Your task to perform on an android device: turn on translation in the chrome app Image 0: 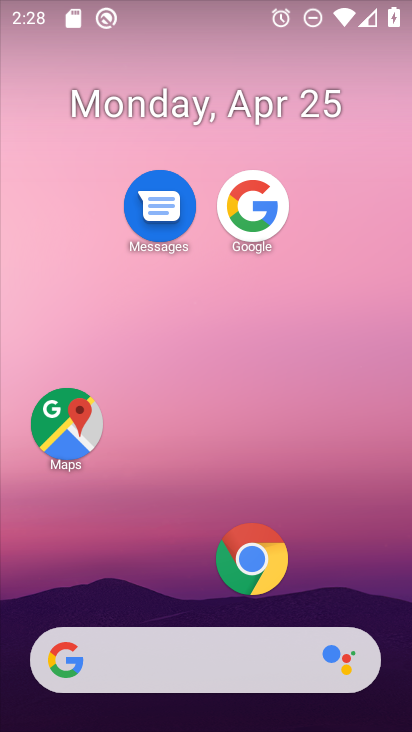
Step 0: click (252, 558)
Your task to perform on an android device: turn on translation in the chrome app Image 1: 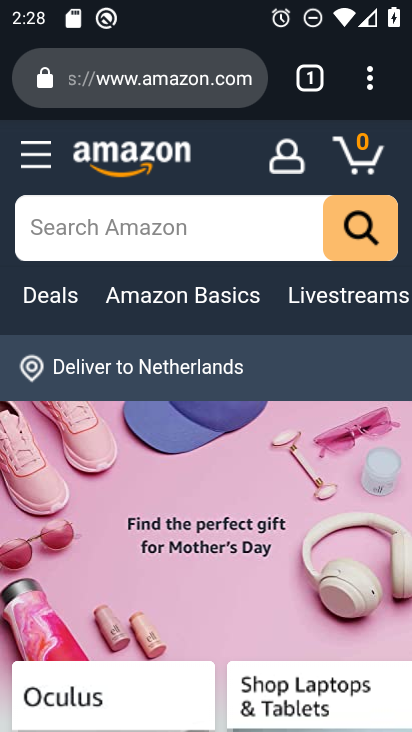
Step 1: click (366, 75)
Your task to perform on an android device: turn on translation in the chrome app Image 2: 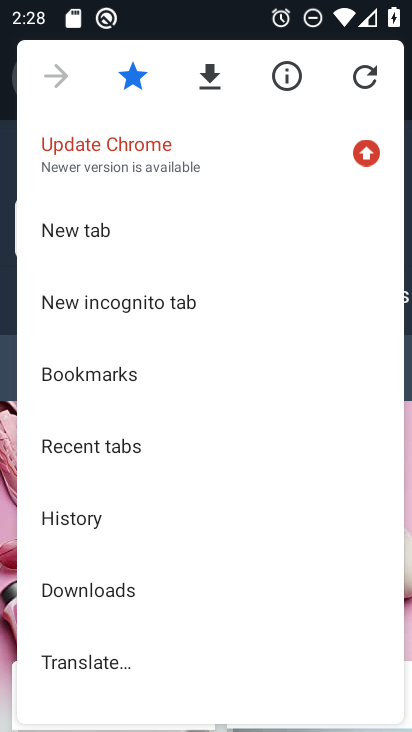
Step 2: drag from (358, 598) to (337, 147)
Your task to perform on an android device: turn on translation in the chrome app Image 3: 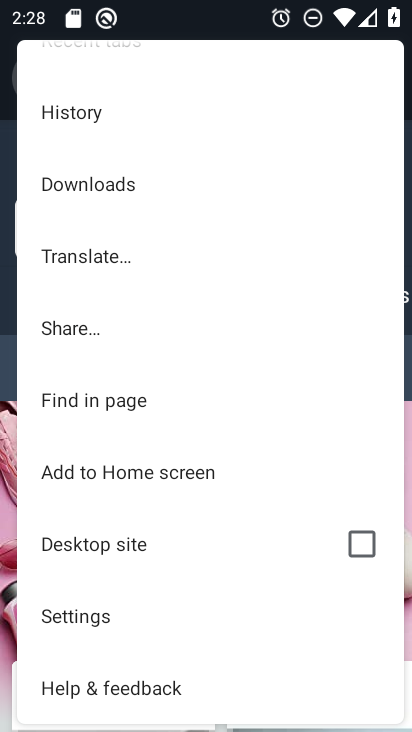
Step 3: click (117, 612)
Your task to perform on an android device: turn on translation in the chrome app Image 4: 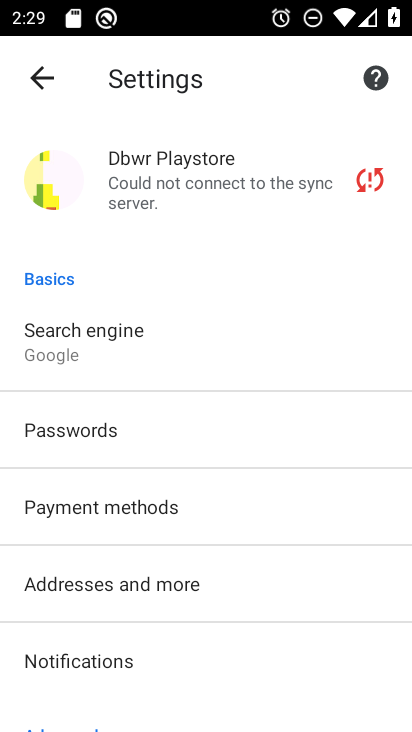
Step 4: drag from (245, 566) to (256, 203)
Your task to perform on an android device: turn on translation in the chrome app Image 5: 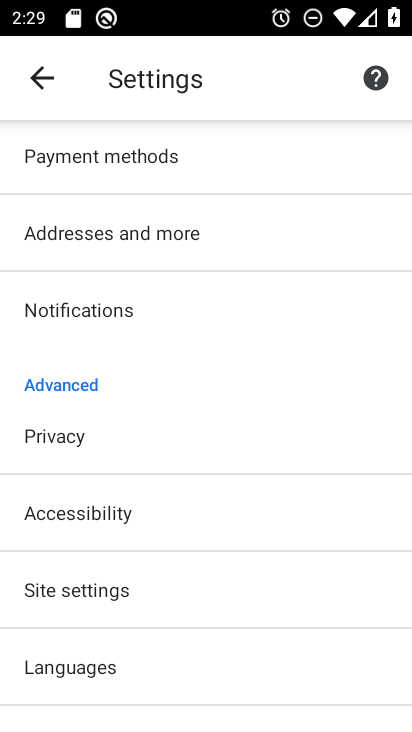
Step 5: drag from (201, 616) to (231, 358)
Your task to perform on an android device: turn on translation in the chrome app Image 6: 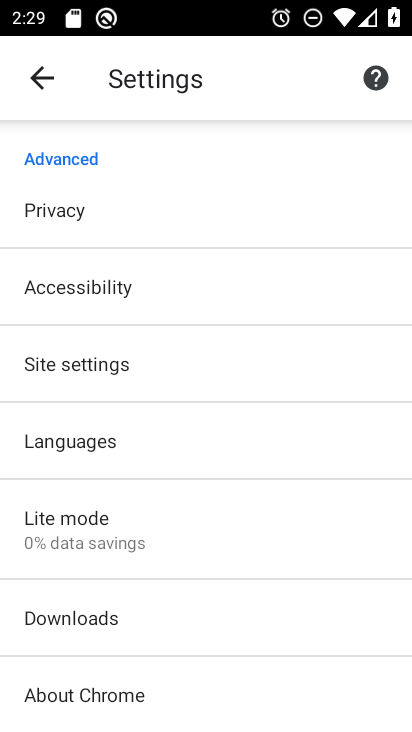
Step 6: drag from (203, 626) to (197, 382)
Your task to perform on an android device: turn on translation in the chrome app Image 7: 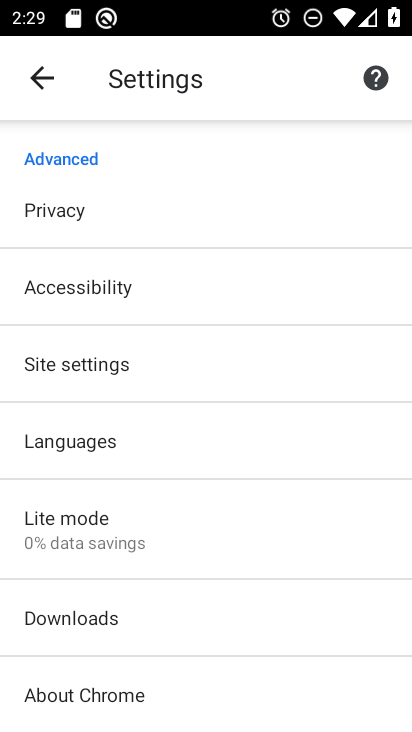
Step 7: click (110, 452)
Your task to perform on an android device: turn on translation in the chrome app Image 8: 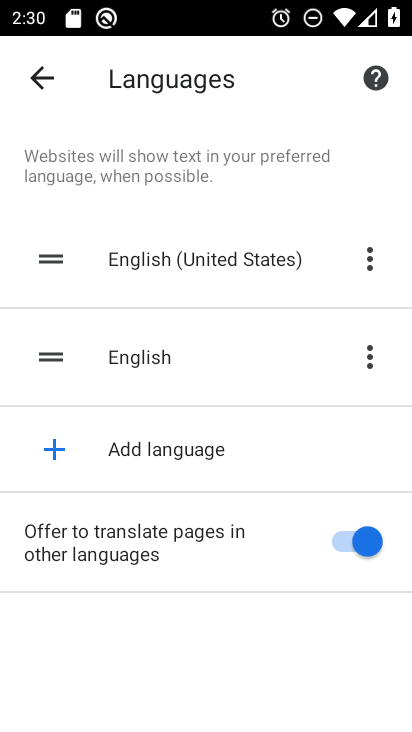
Step 8: task complete